Your task to perform on an android device: Play the last video I watched on Youtube Image 0: 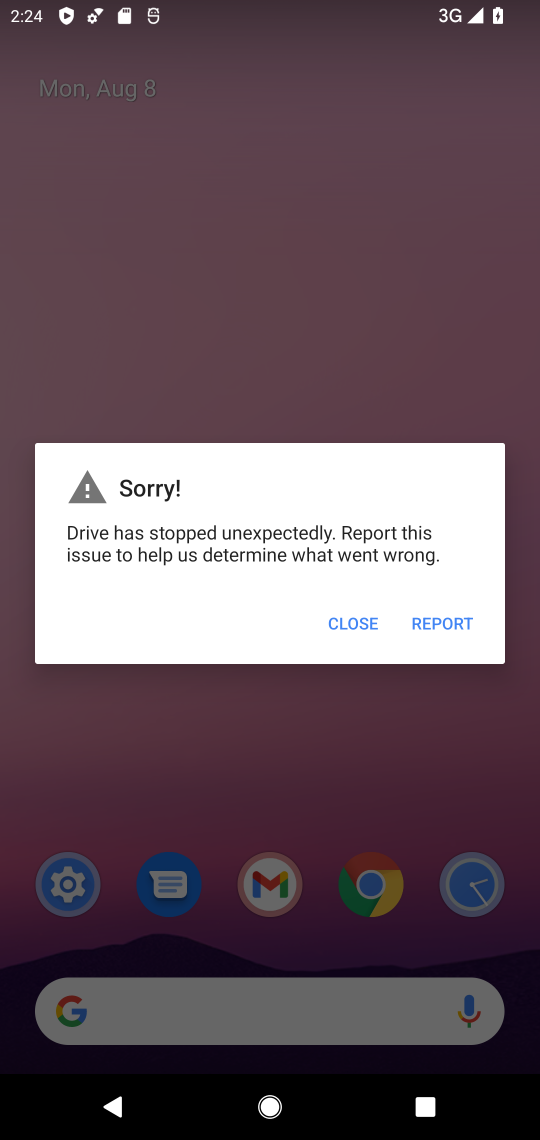
Step 0: press home button
Your task to perform on an android device: Play the last video I watched on Youtube Image 1: 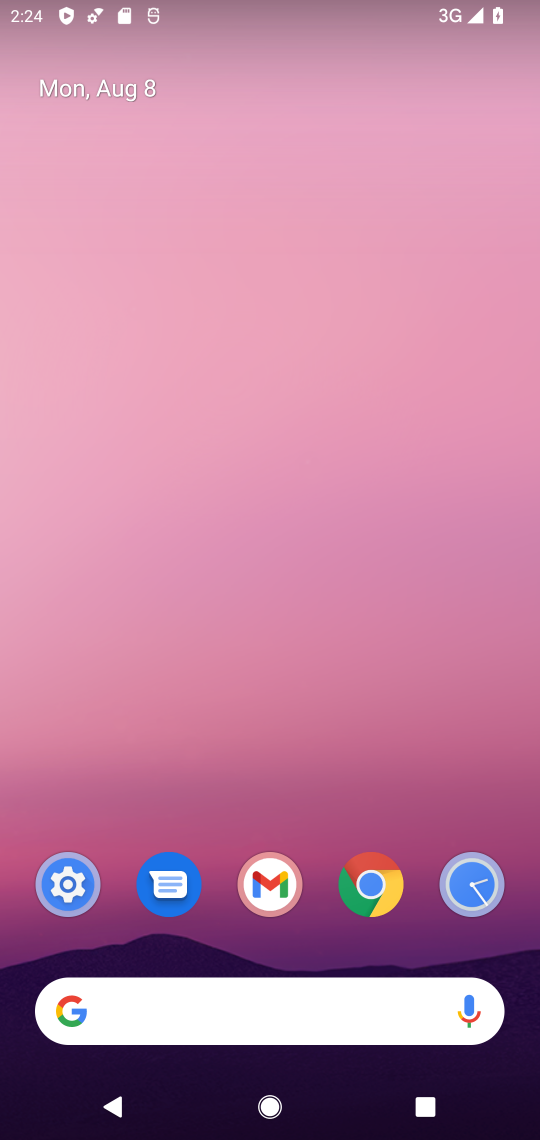
Step 1: drag from (262, 765) to (284, 74)
Your task to perform on an android device: Play the last video I watched on Youtube Image 2: 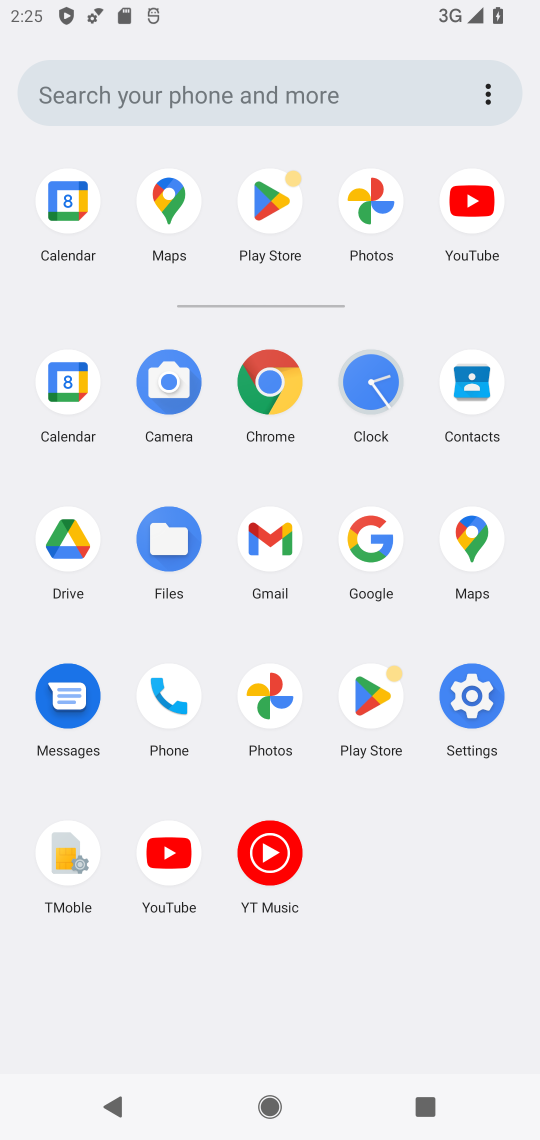
Step 2: click (168, 852)
Your task to perform on an android device: Play the last video I watched on Youtube Image 3: 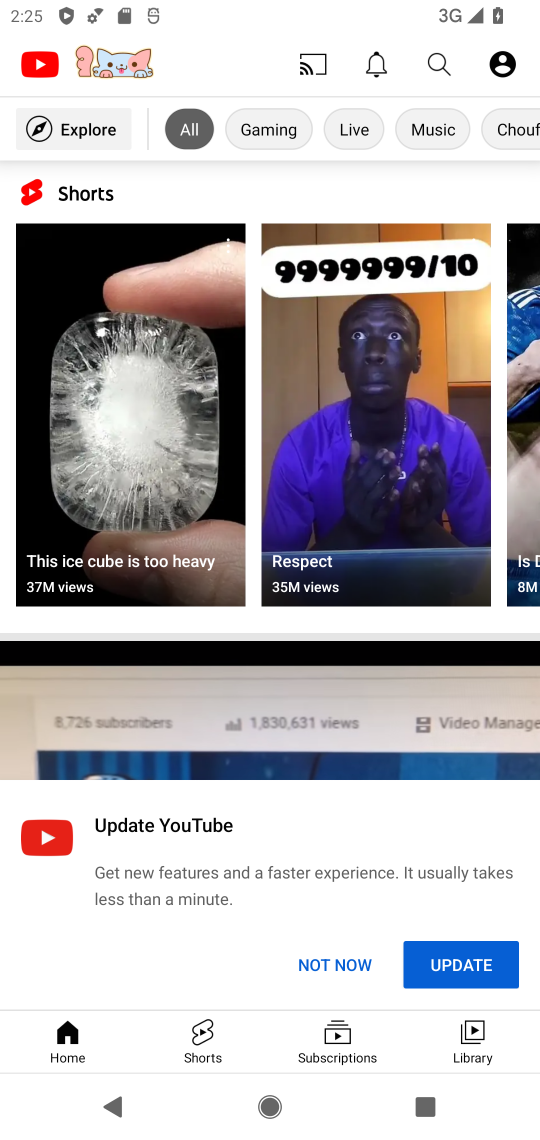
Step 3: click (473, 1033)
Your task to perform on an android device: Play the last video I watched on Youtube Image 4: 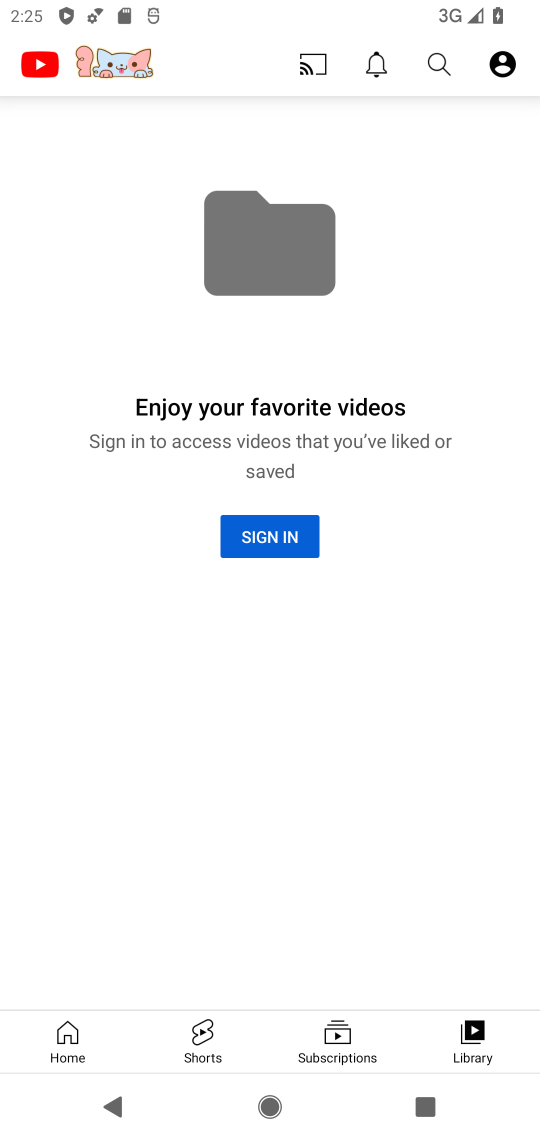
Step 4: task complete